Your task to perform on an android device: What's the weather today? Image 0: 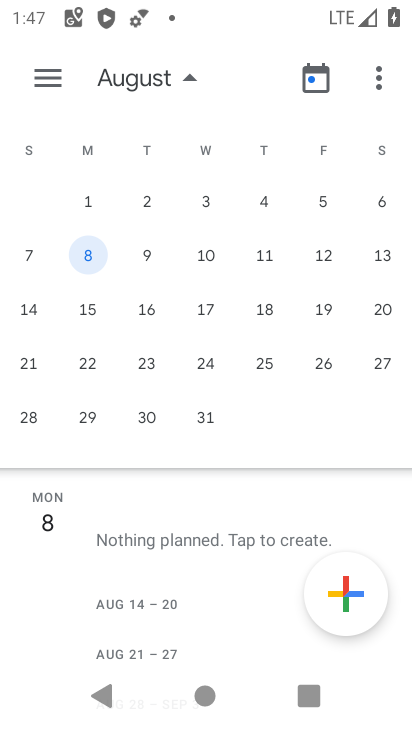
Step 0: press home button
Your task to perform on an android device: What's the weather today? Image 1: 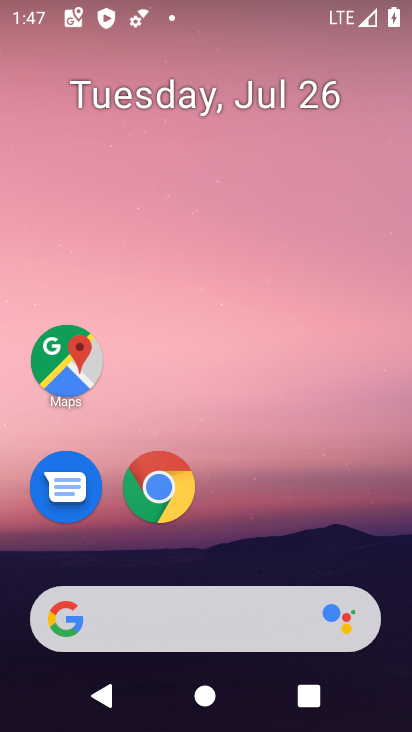
Step 1: drag from (210, 546) to (251, 159)
Your task to perform on an android device: What's the weather today? Image 2: 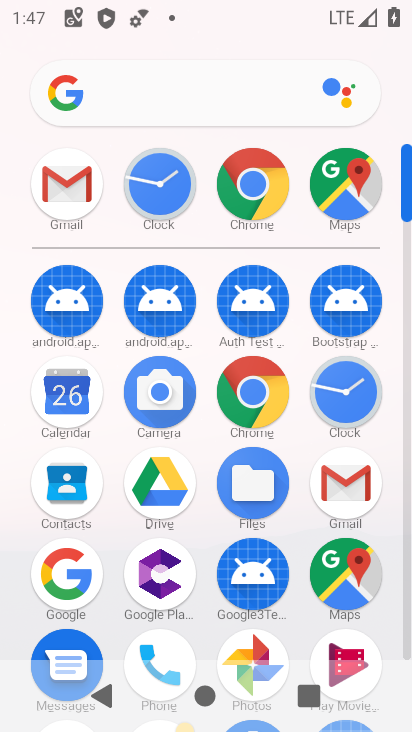
Step 2: click (244, 213)
Your task to perform on an android device: What's the weather today? Image 3: 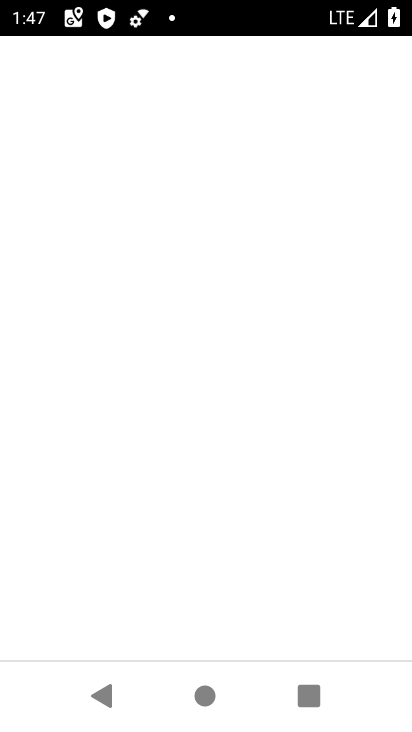
Step 3: press back button
Your task to perform on an android device: What's the weather today? Image 4: 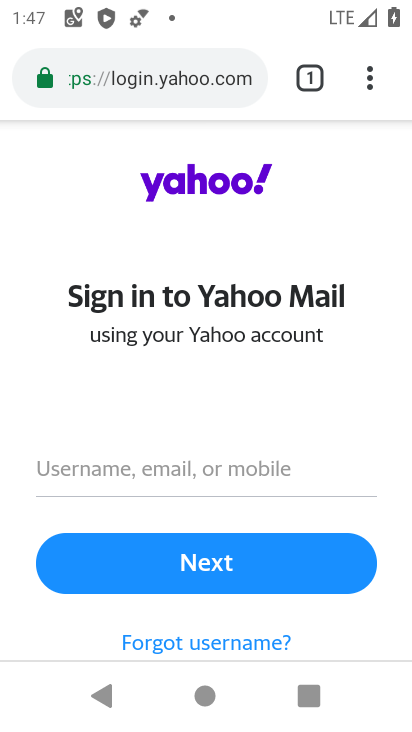
Step 4: press home button
Your task to perform on an android device: What's the weather today? Image 5: 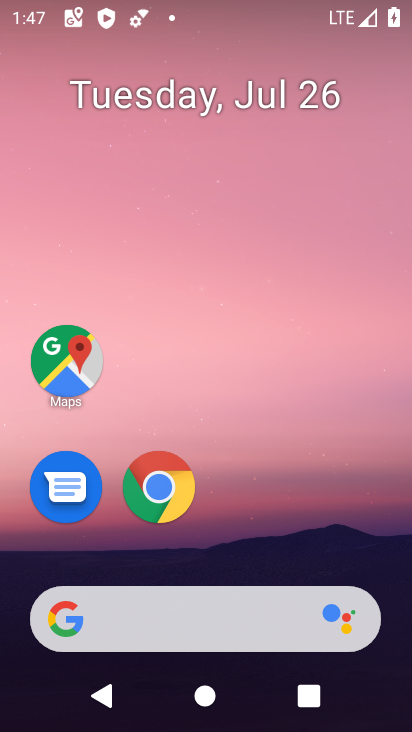
Step 5: drag from (207, 605) to (222, 105)
Your task to perform on an android device: What's the weather today? Image 6: 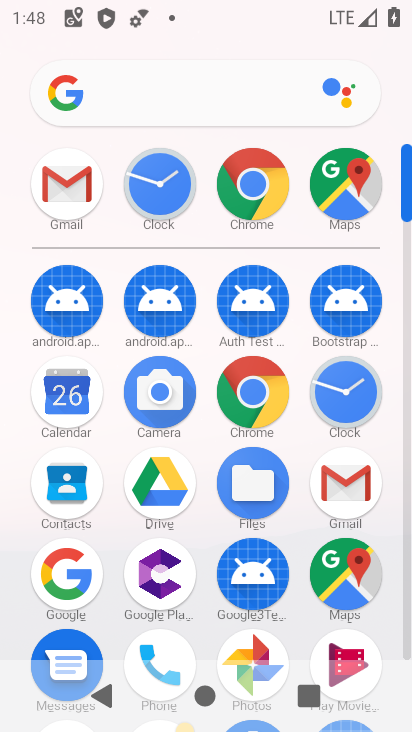
Step 6: drag from (258, 443) to (295, 170)
Your task to perform on an android device: What's the weather today? Image 7: 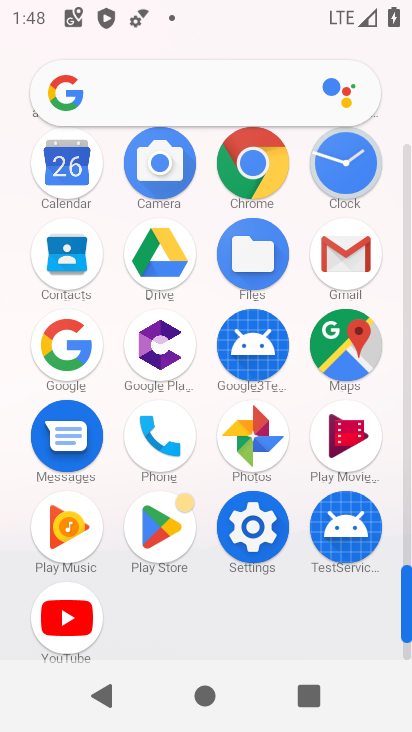
Step 7: click (81, 344)
Your task to perform on an android device: What's the weather today? Image 8: 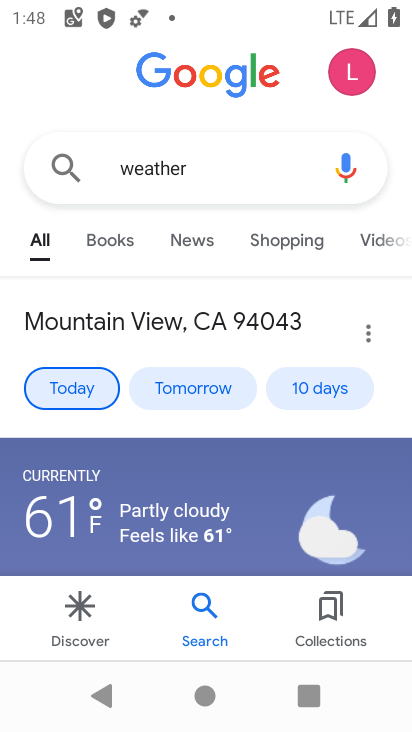
Step 8: task complete